Your task to perform on an android device: turn off picture-in-picture Image 0: 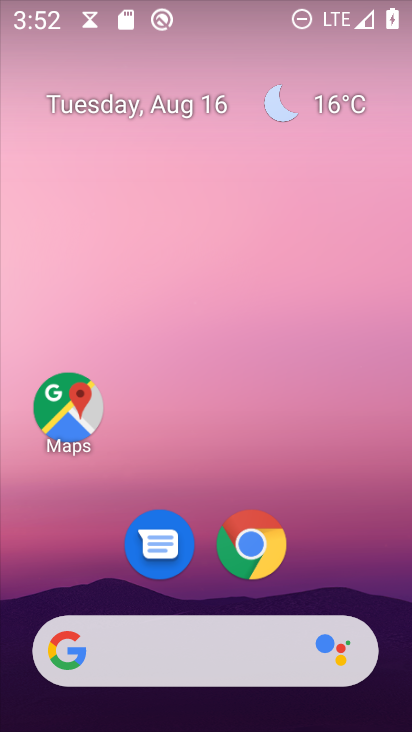
Step 0: click (250, 546)
Your task to perform on an android device: turn off picture-in-picture Image 1: 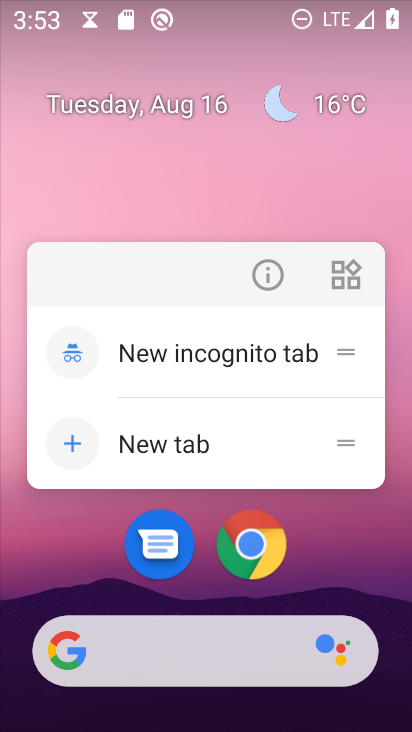
Step 1: click (267, 280)
Your task to perform on an android device: turn off picture-in-picture Image 2: 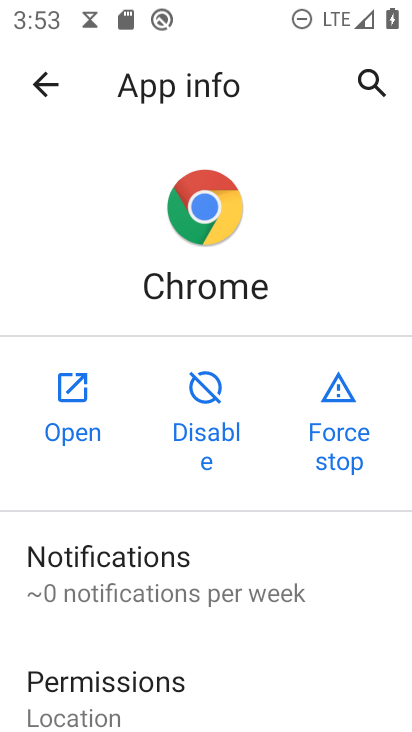
Step 2: drag from (202, 637) to (252, 464)
Your task to perform on an android device: turn off picture-in-picture Image 3: 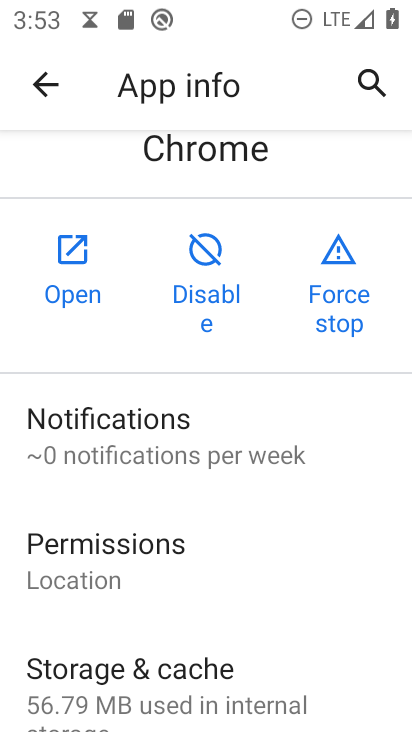
Step 3: drag from (192, 614) to (259, 440)
Your task to perform on an android device: turn off picture-in-picture Image 4: 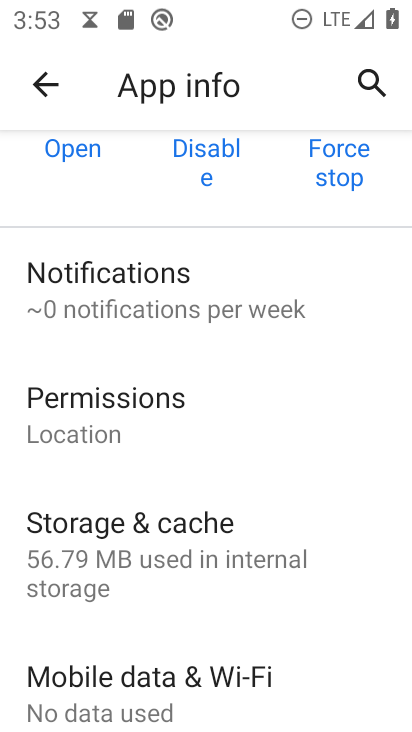
Step 4: drag from (189, 592) to (261, 452)
Your task to perform on an android device: turn off picture-in-picture Image 5: 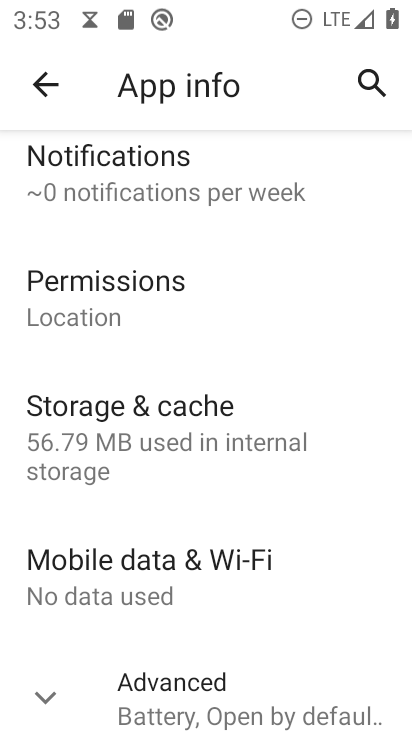
Step 5: drag from (180, 615) to (265, 494)
Your task to perform on an android device: turn off picture-in-picture Image 6: 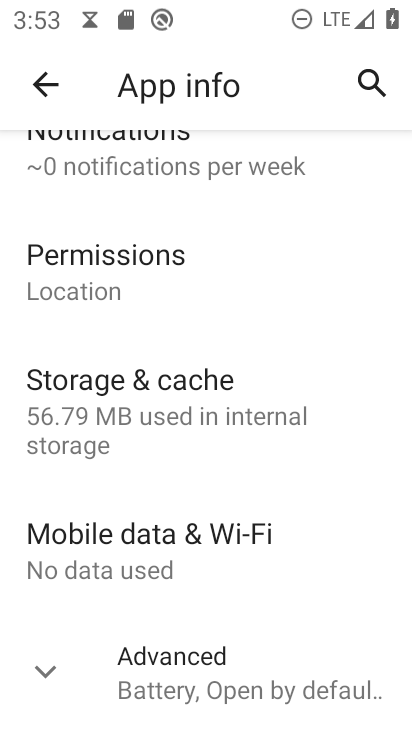
Step 6: click (208, 693)
Your task to perform on an android device: turn off picture-in-picture Image 7: 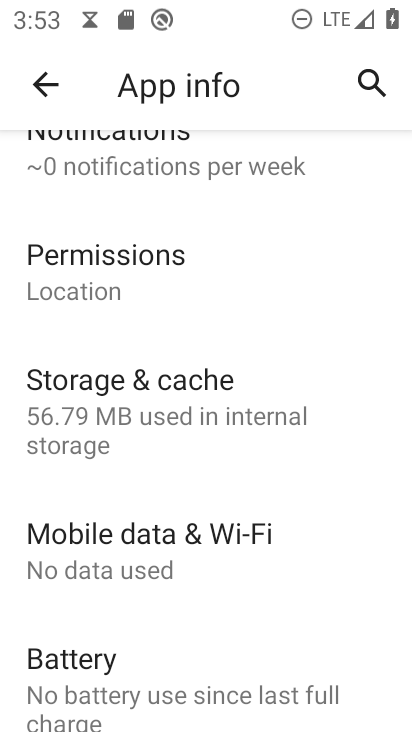
Step 7: drag from (174, 609) to (261, 471)
Your task to perform on an android device: turn off picture-in-picture Image 8: 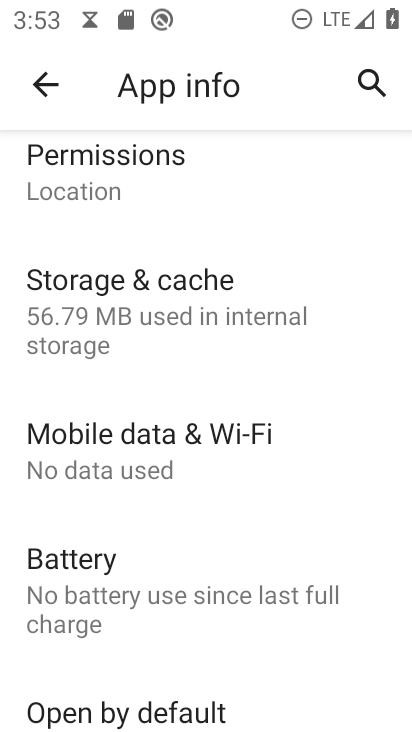
Step 8: drag from (183, 655) to (282, 485)
Your task to perform on an android device: turn off picture-in-picture Image 9: 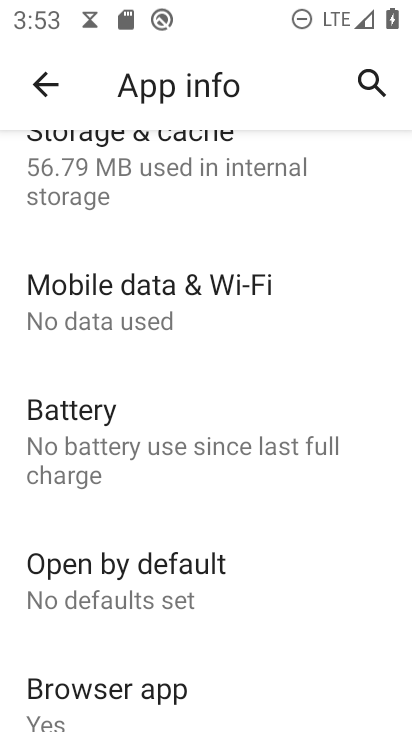
Step 9: drag from (146, 634) to (277, 444)
Your task to perform on an android device: turn off picture-in-picture Image 10: 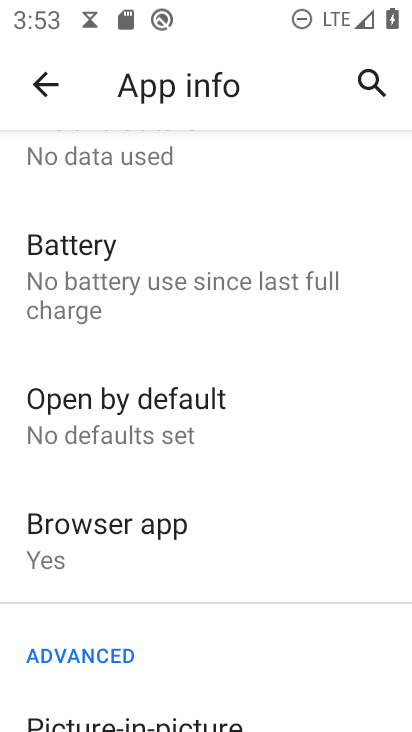
Step 10: drag from (186, 546) to (312, 395)
Your task to perform on an android device: turn off picture-in-picture Image 11: 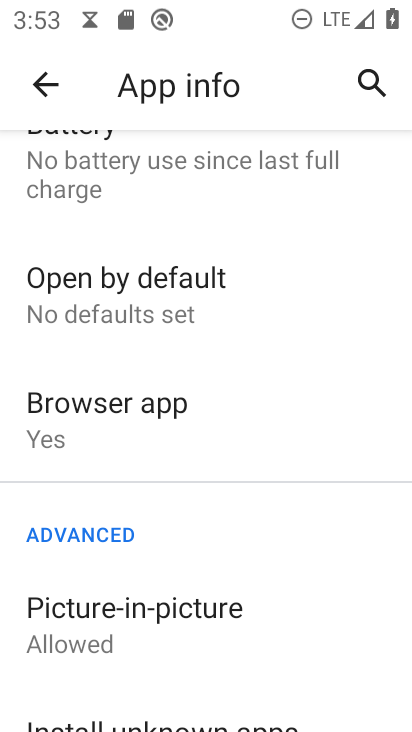
Step 11: click (181, 599)
Your task to perform on an android device: turn off picture-in-picture Image 12: 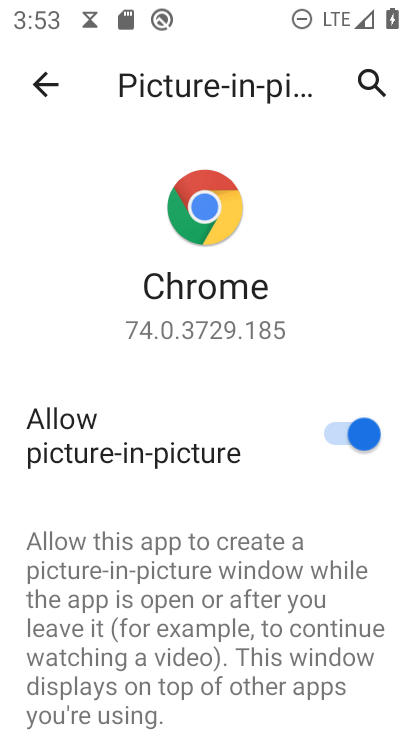
Step 12: click (332, 434)
Your task to perform on an android device: turn off picture-in-picture Image 13: 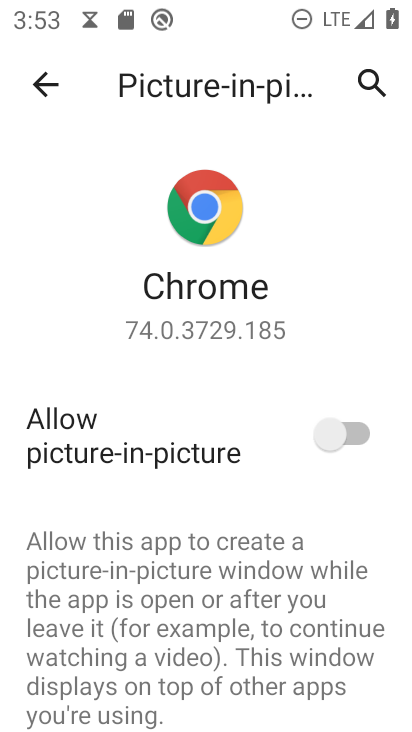
Step 13: task complete